Your task to perform on an android device: check data usage Image 0: 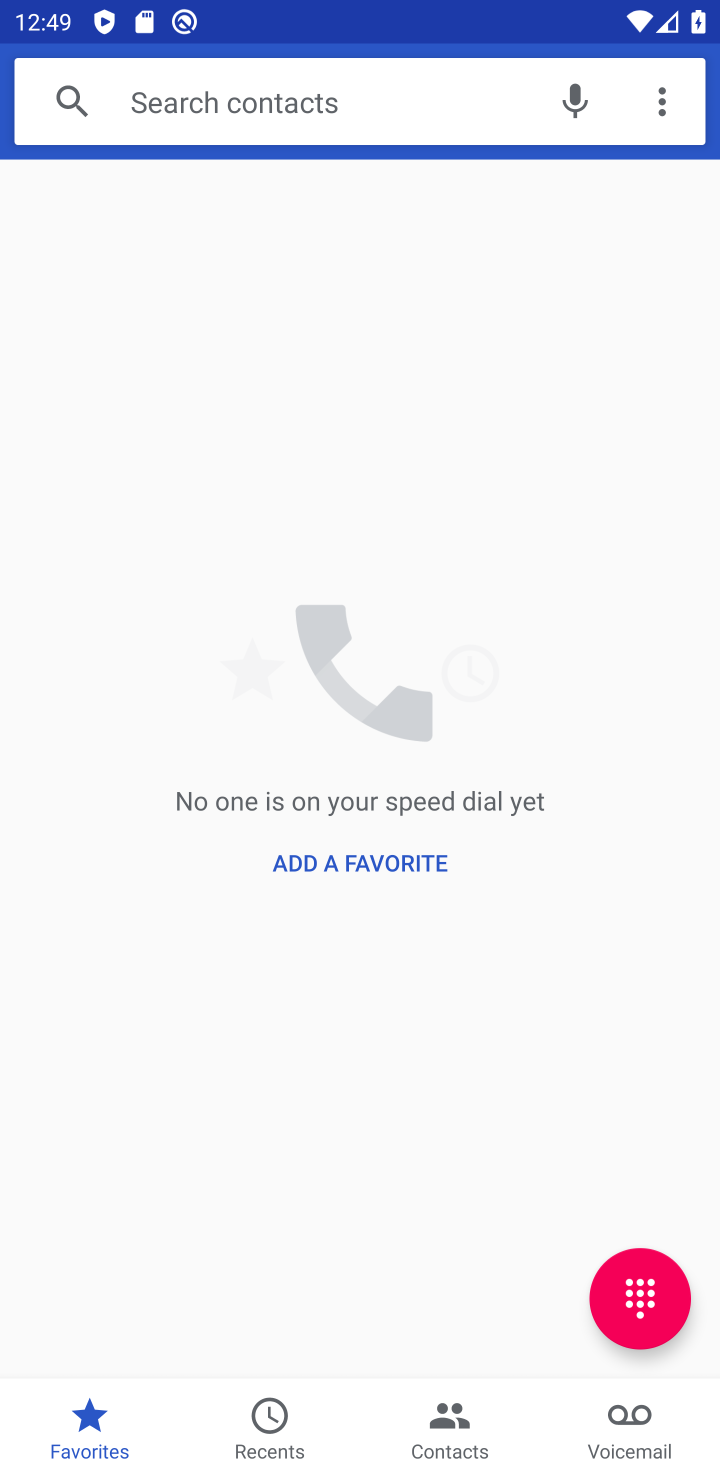
Step 0: press home button
Your task to perform on an android device: check data usage Image 1: 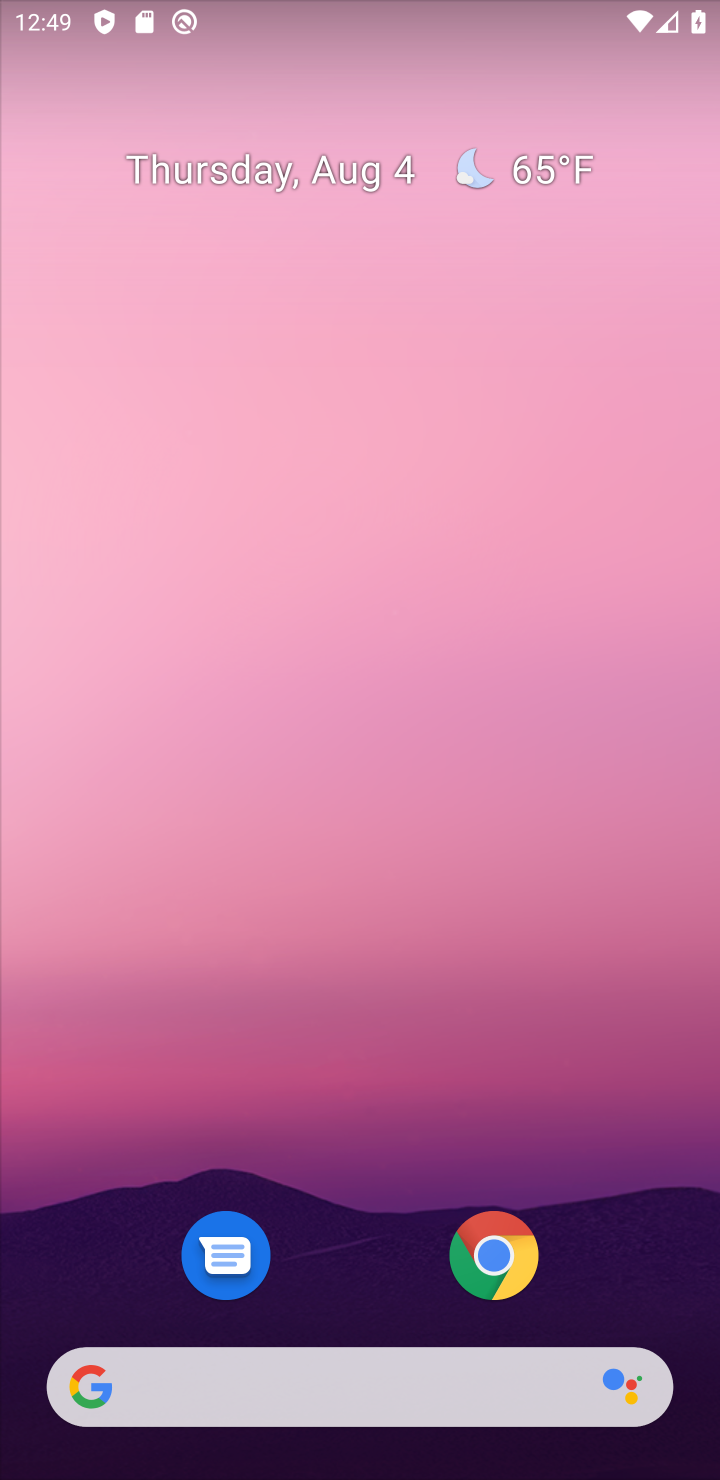
Step 1: drag from (259, 1295) to (201, 151)
Your task to perform on an android device: check data usage Image 2: 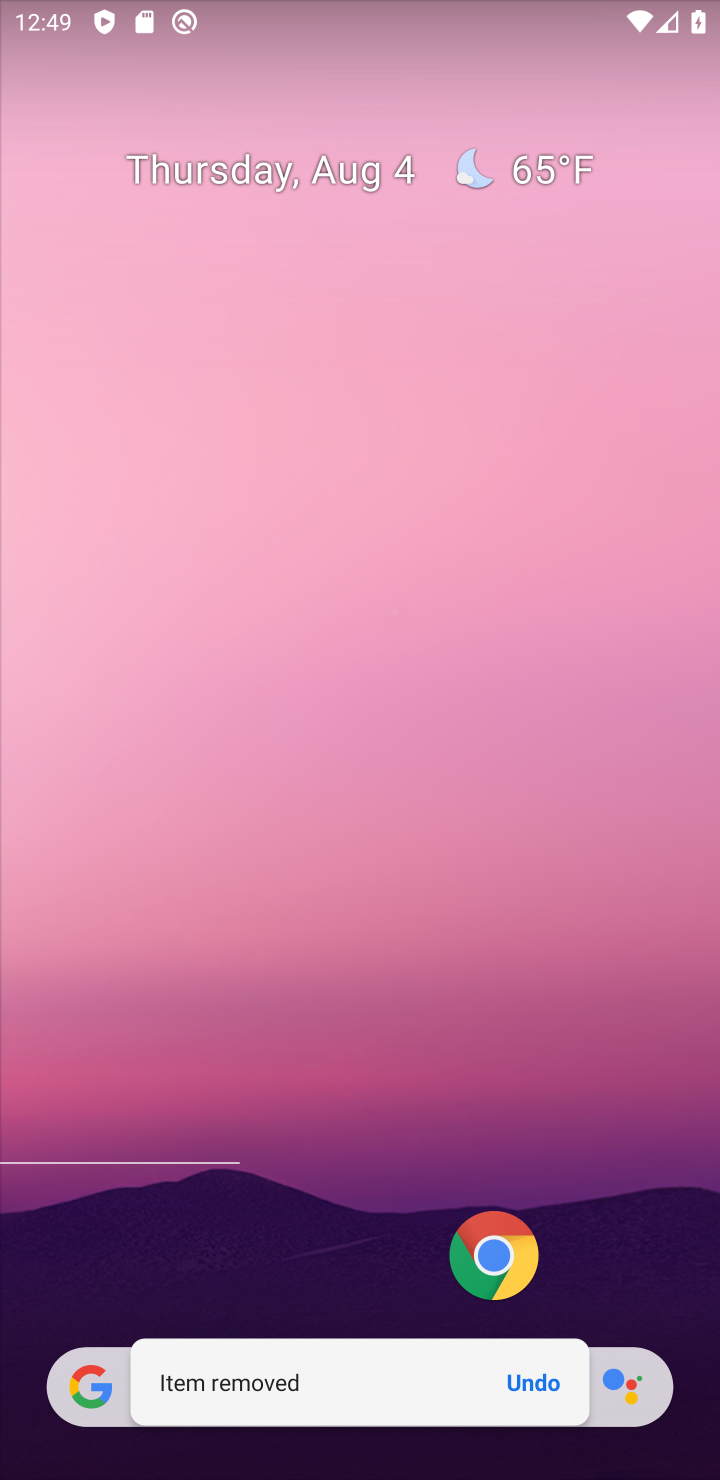
Step 2: click (580, 1113)
Your task to perform on an android device: check data usage Image 3: 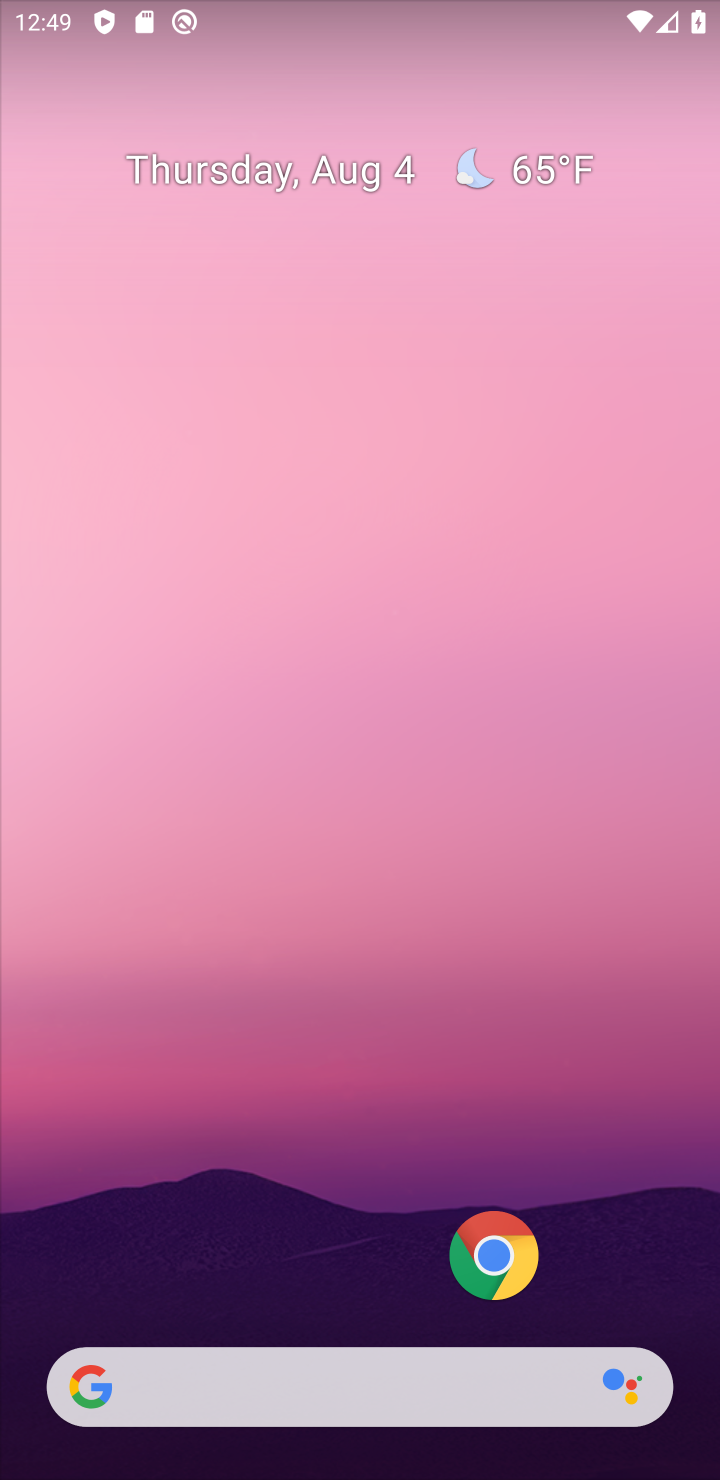
Step 3: click (229, 925)
Your task to perform on an android device: check data usage Image 4: 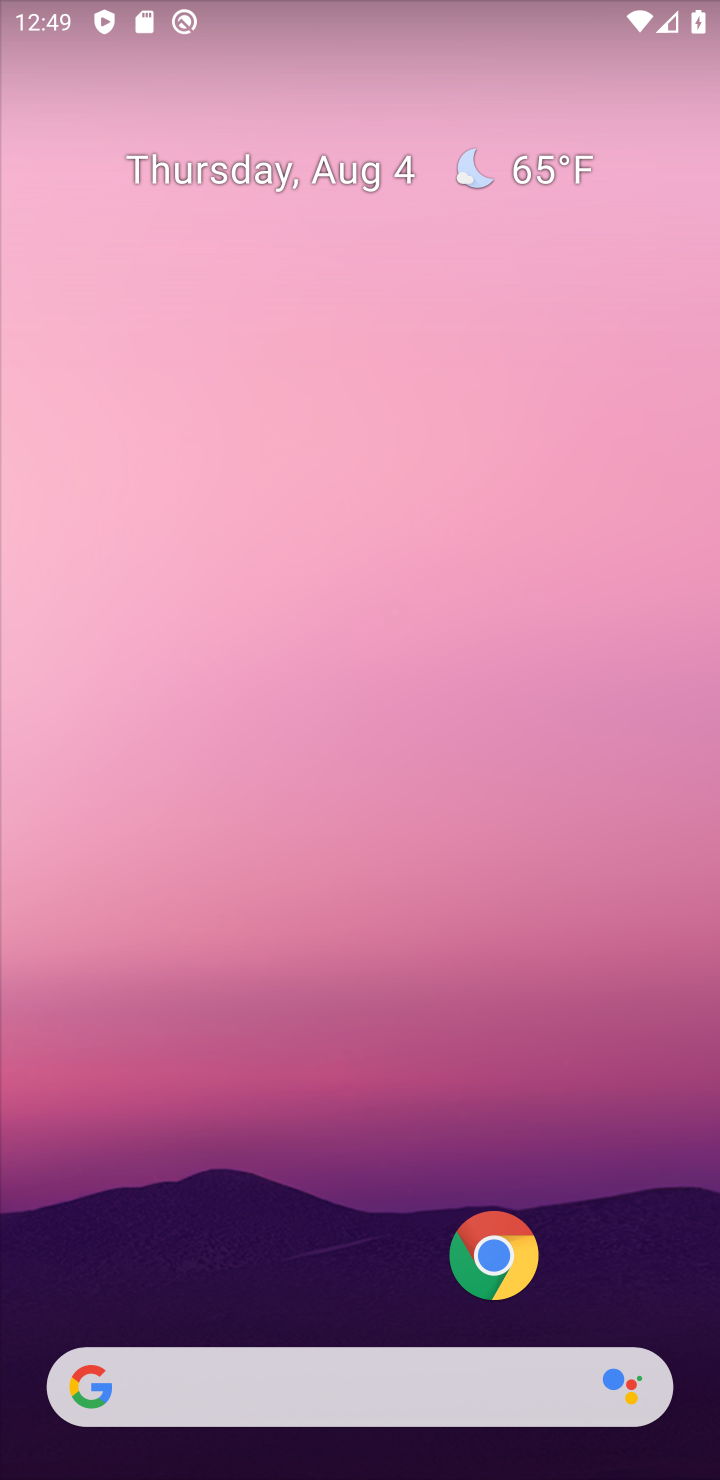
Step 4: drag from (301, 1325) to (265, 85)
Your task to perform on an android device: check data usage Image 5: 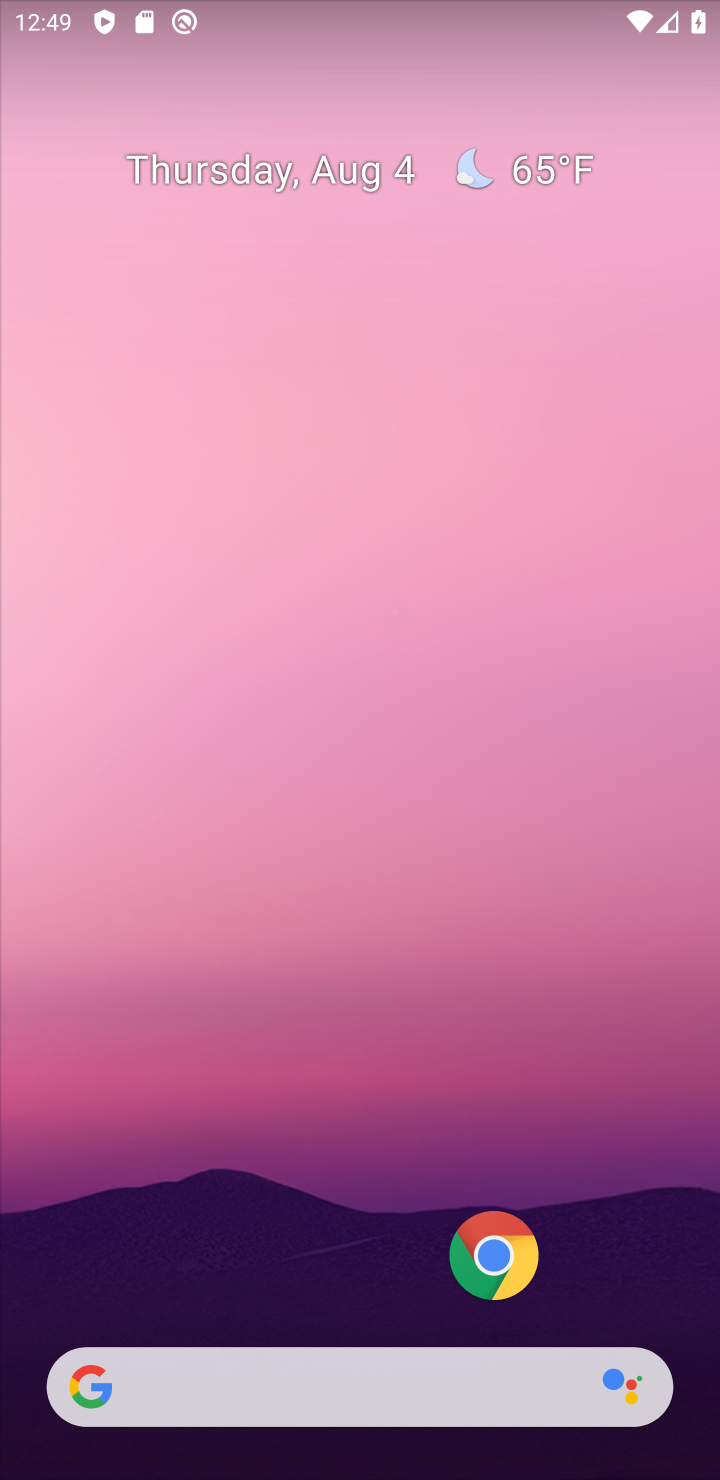
Step 5: drag from (351, 1106) to (246, 172)
Your task to perform on an android device: check data usage Image 6: 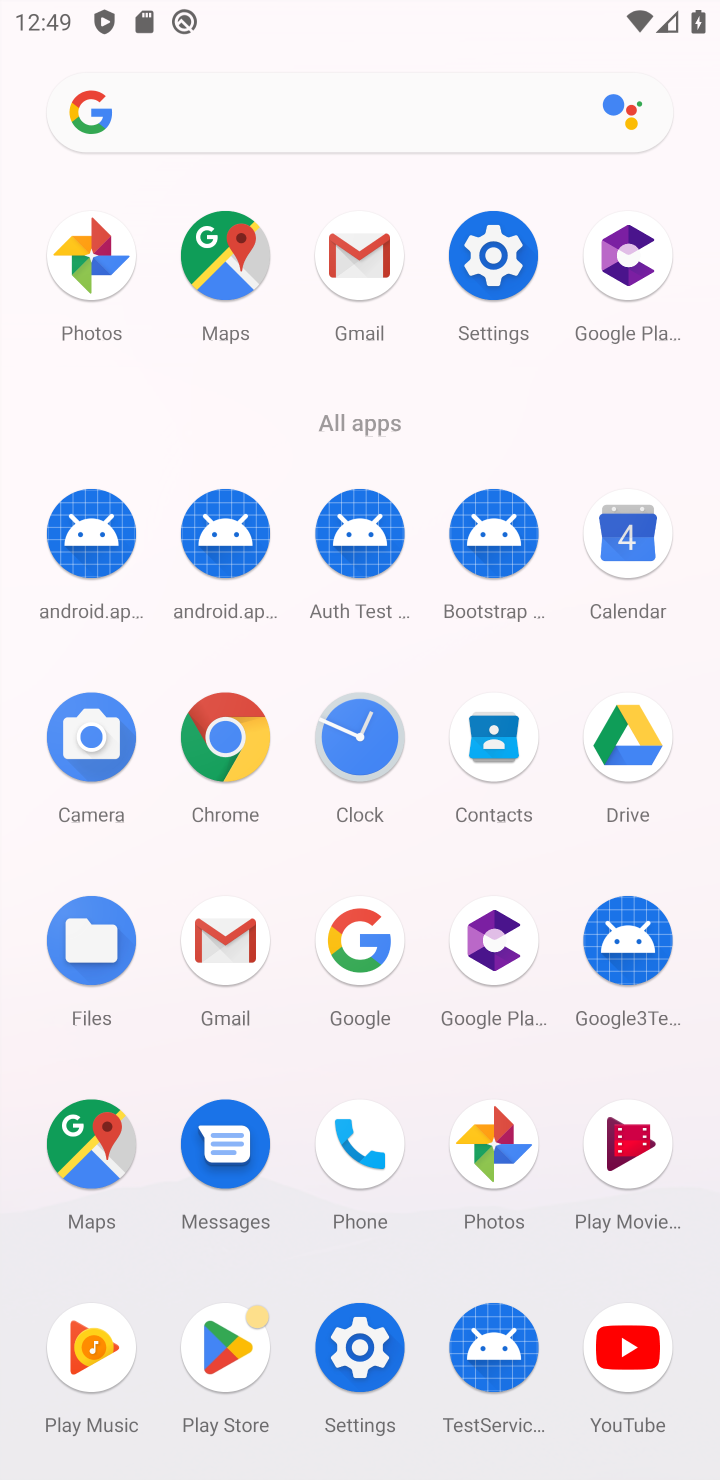
Step 6: click (483, 275)
Your task to perform on an android device: check data usage Image 7: 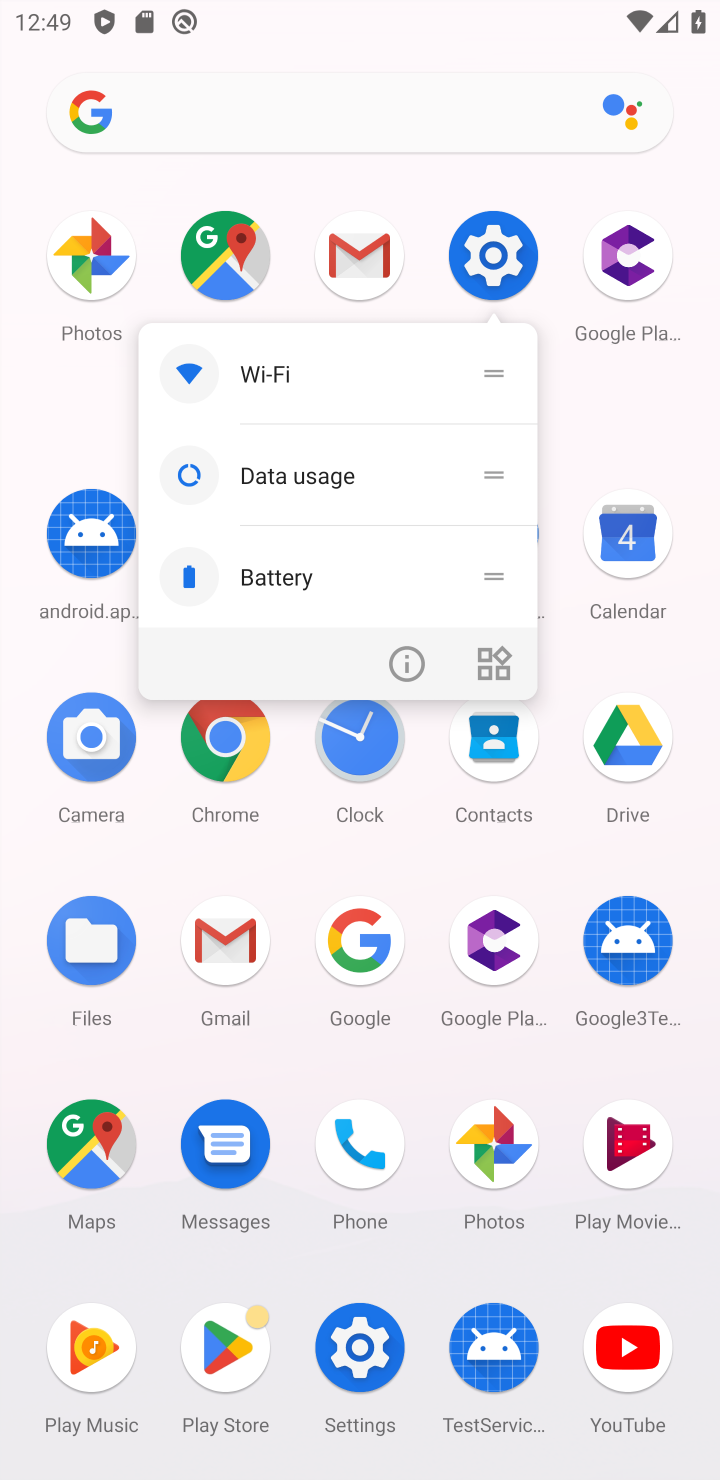
Step 7: click (483, 275)
Your task to perform on an android device: check data usage Image 8: 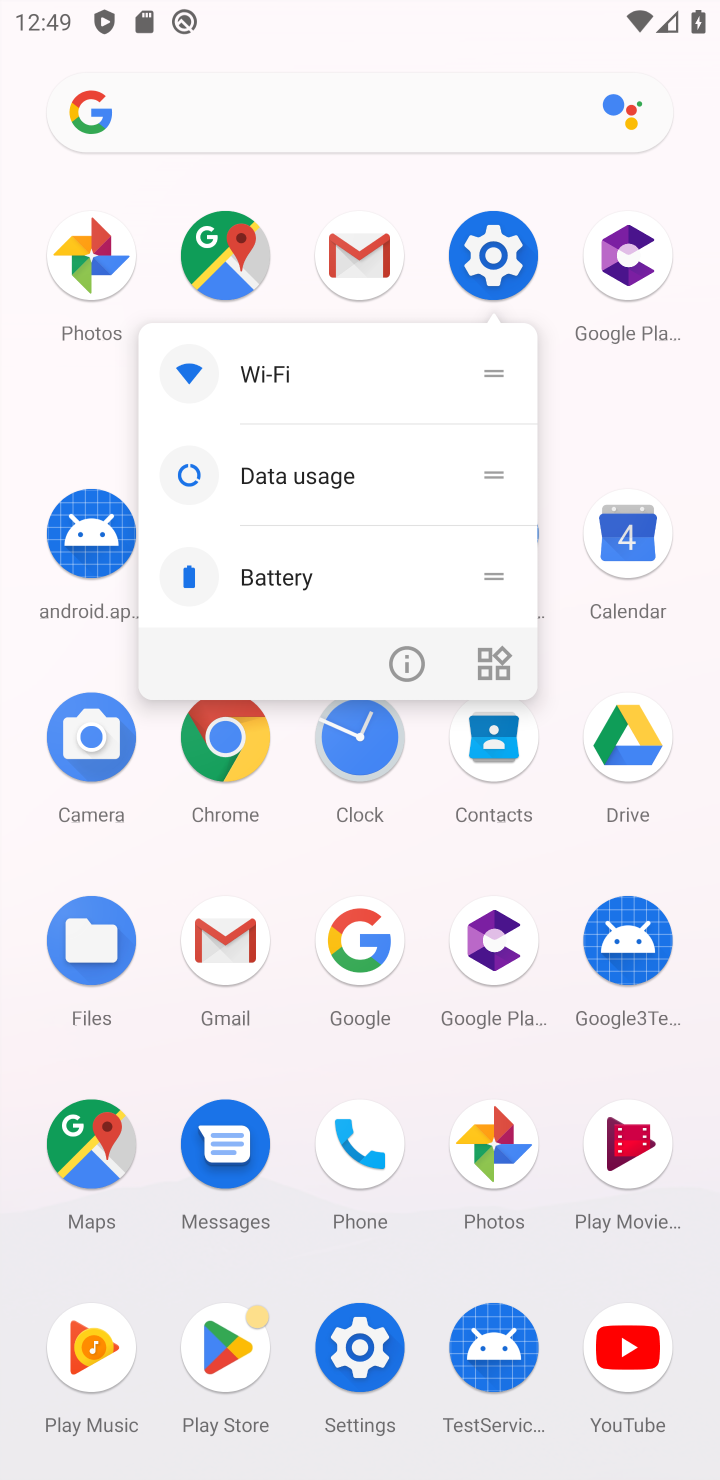
Step 8: click (483, 275)
Your task to perform on an android device: check data usage Image 9: 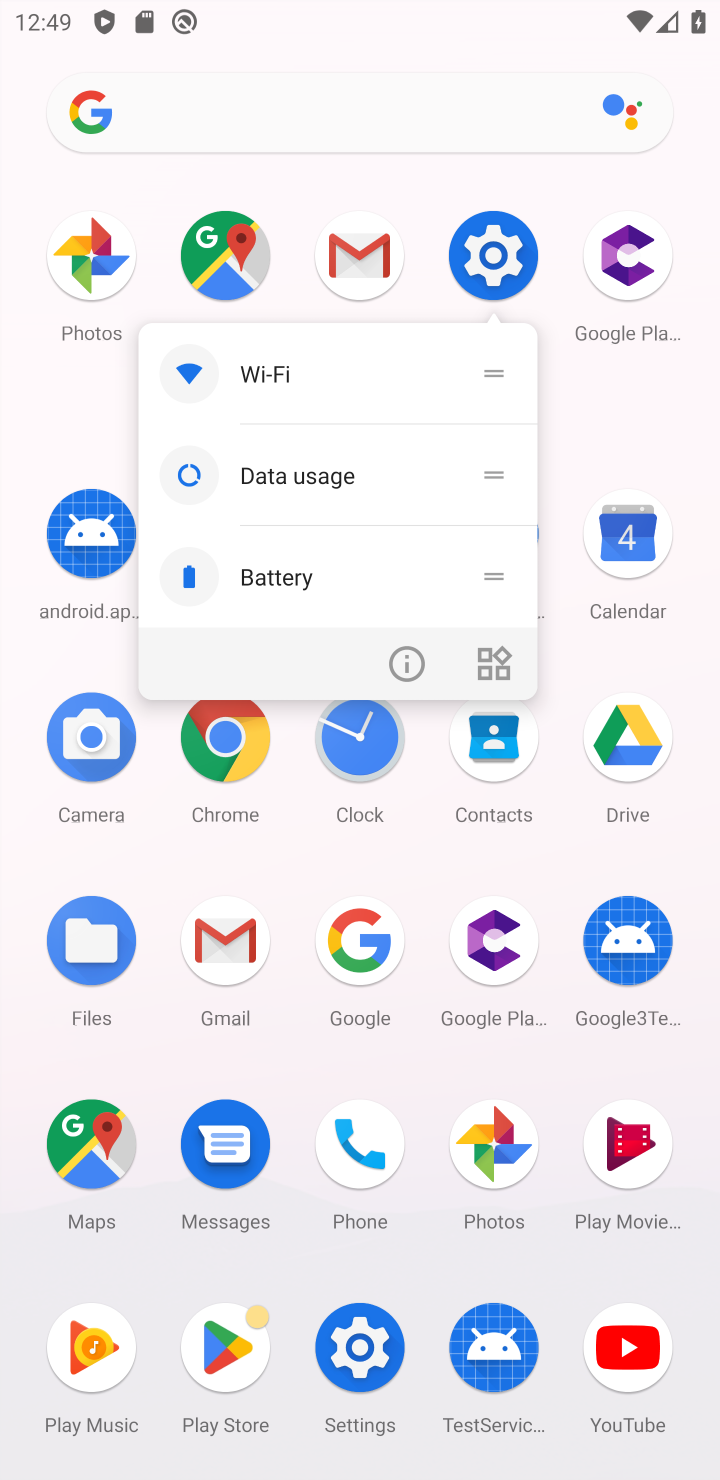
Step 9: click (483, 275)
Your task to perform on an android device: check data usage Image 10: 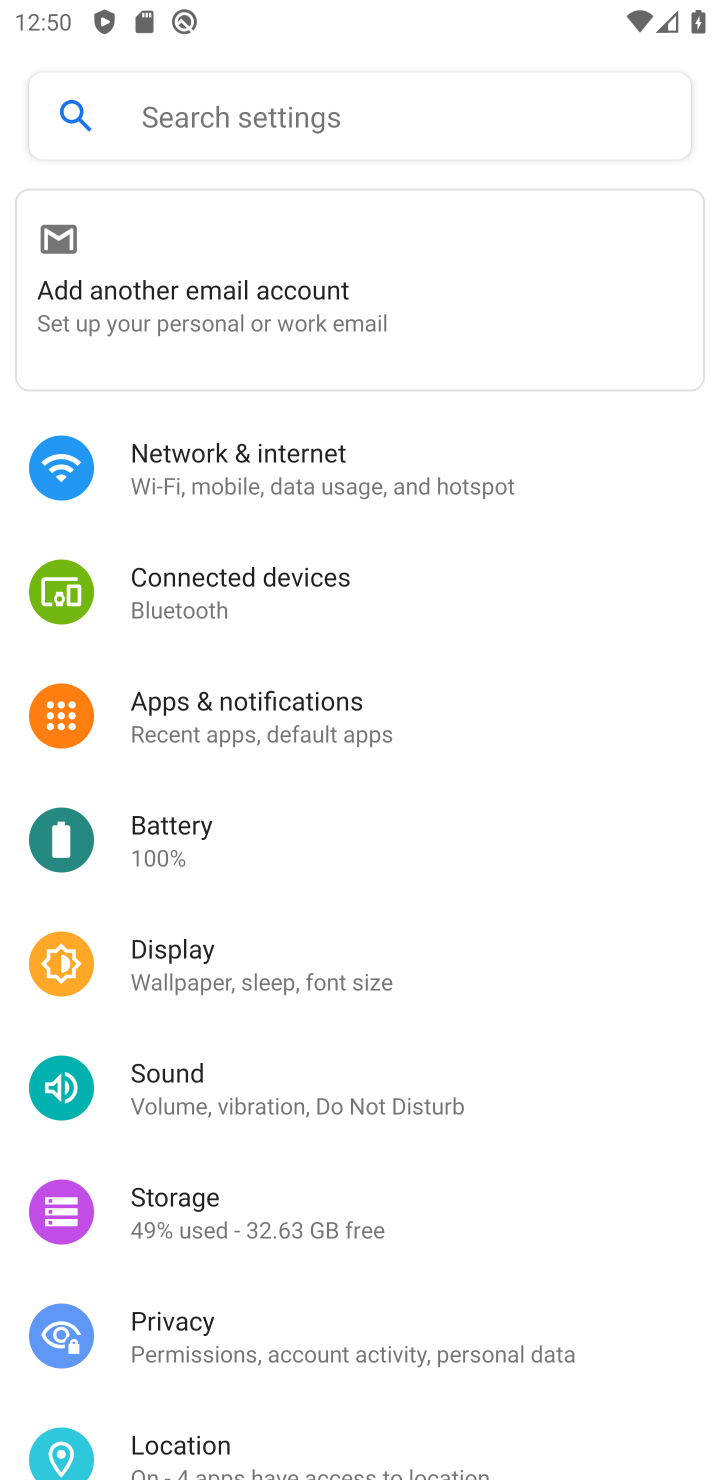
Step 10: click (387, 491)
Your task to perform on an android device: check data usage Image 11: 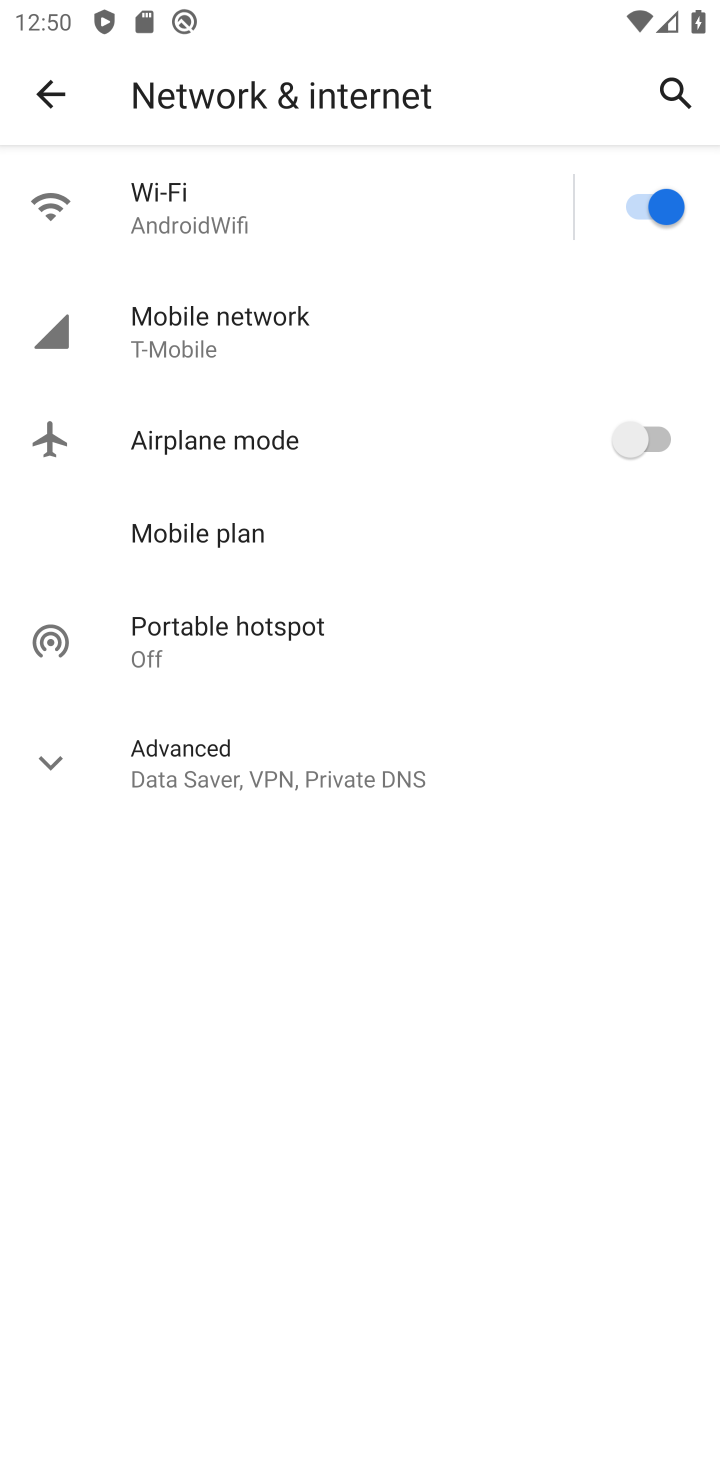
Step 11: click (232, 327)
Your task to perform on an android device: check data usage Image 12: 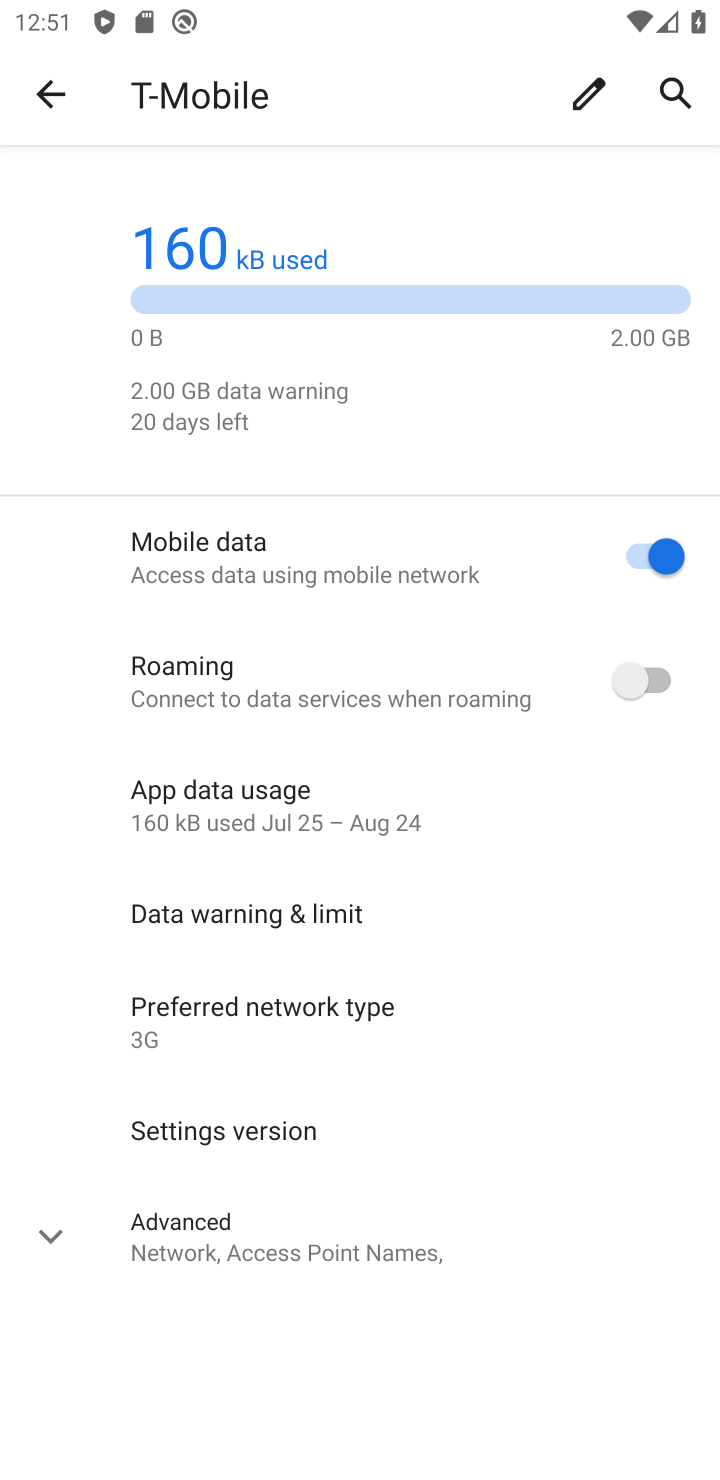
Step 12: task complete